Your task to perform on an android device: set the stopwatch Image 0: 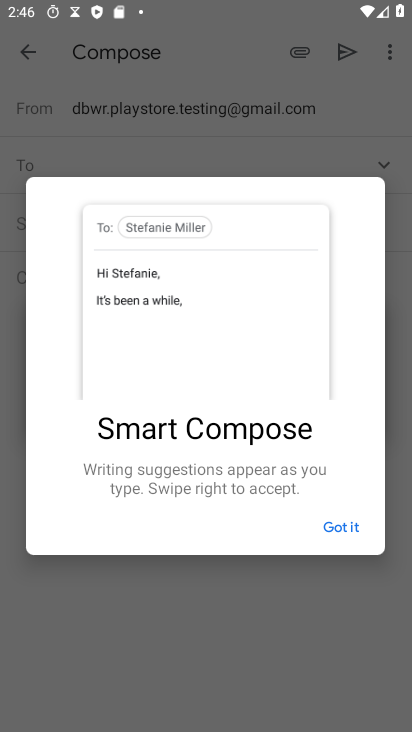
Step 0: press home button
Your task to perform on an android device: set the stopwatch Image 1: 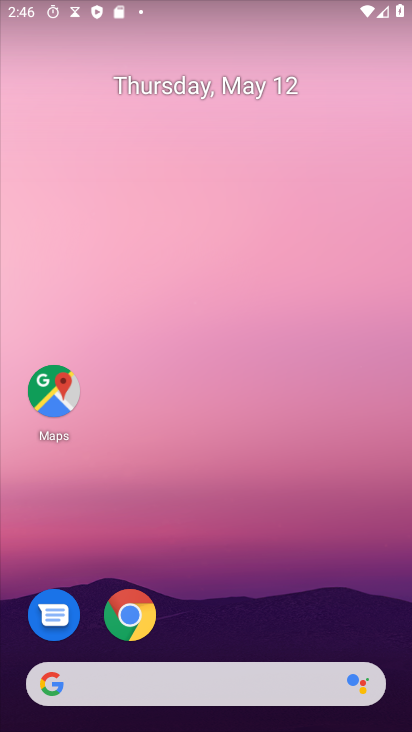
Step 1: drag from (21, 571) to (241, 138)
Your task to perform on an android device: set the stopwatch Image 2: 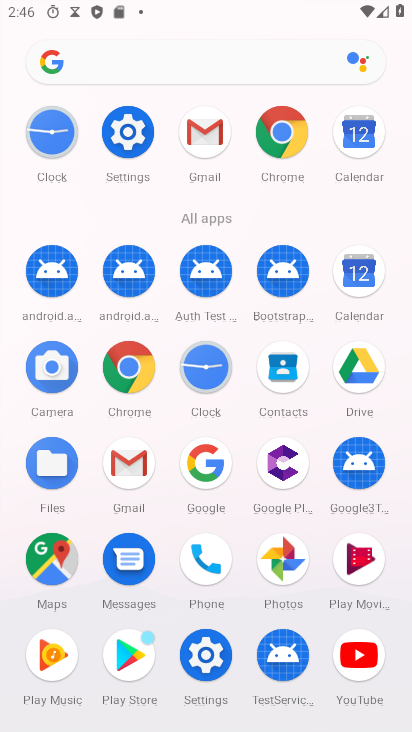
Step 2: click (212, 370)
Your task to perform on an android device: set the stopwatch Image 3: 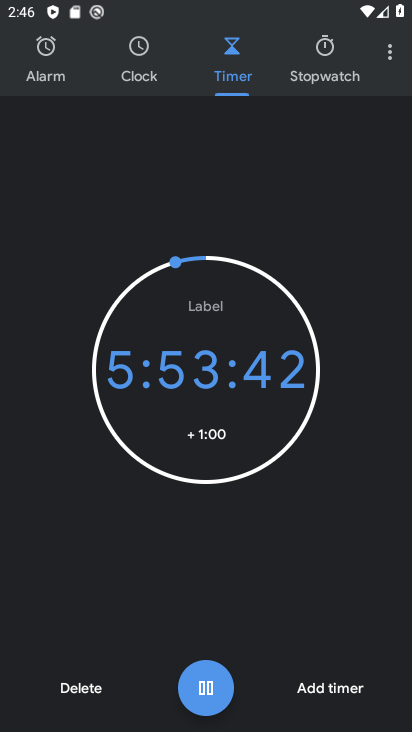
Step 3: click (339, 51)
Your task to perform on an android device: set the stopwatch Image 4: 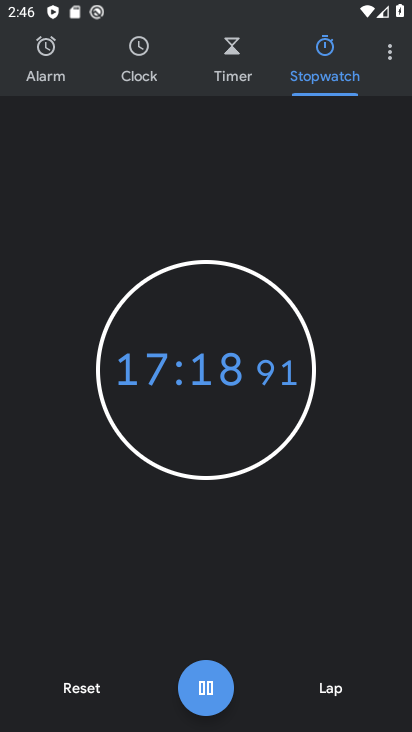
Step 4: click (95, 680)
Your task to perform on an android device: set the stopwatch Image 5: 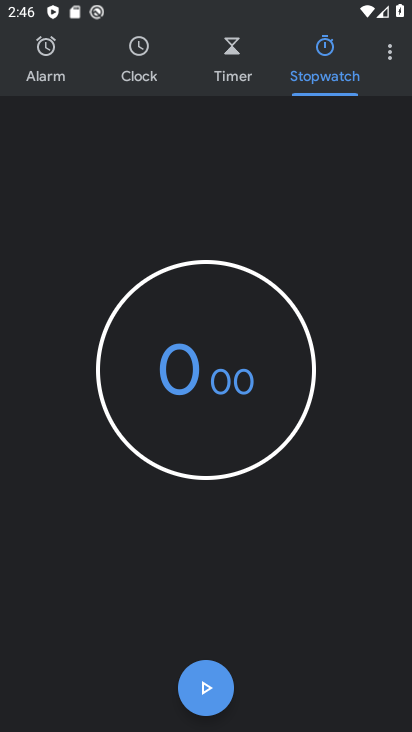
Step 5: click (219, 696)
Your task to perform on an android device: set the stopwatch Image 6: 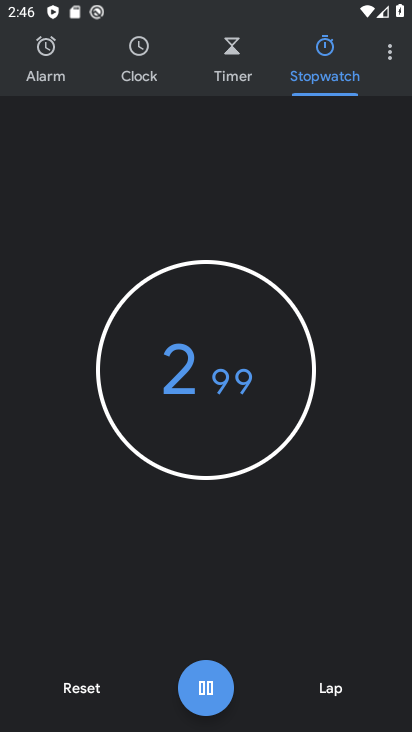
Step 6: task complete